Your task to perform on an android device: toggle notification dots Image 0: 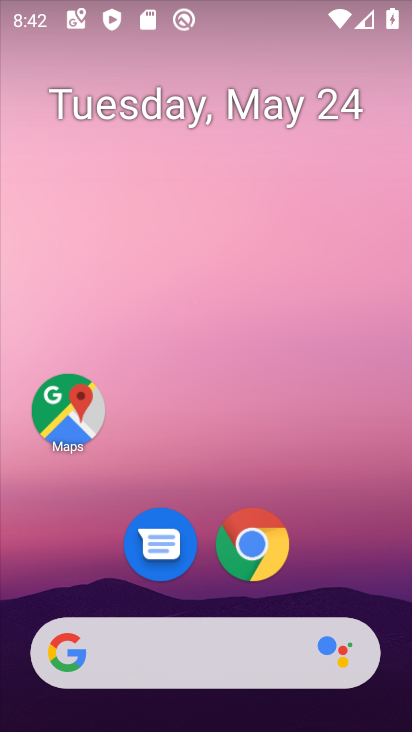
Step 0: drag from (391, 614) to (274, 154)
Your task to perform on an android device: toggle notification dots Image 1: 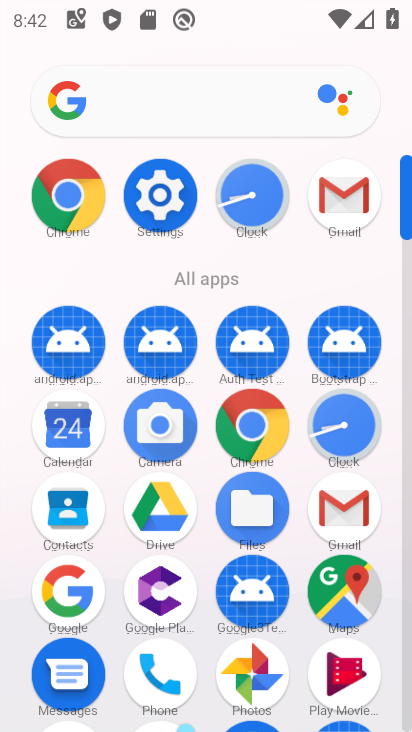
Step 1: click (148, 199)
Your task to perform on an android device: toggle notification dots Image 2: 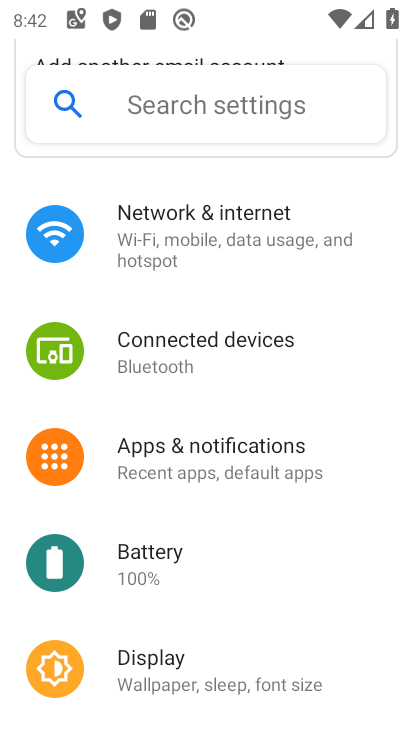
Step 2: click (215, 462)
Your task to perform on an android device: toggle notification dots Image 3: 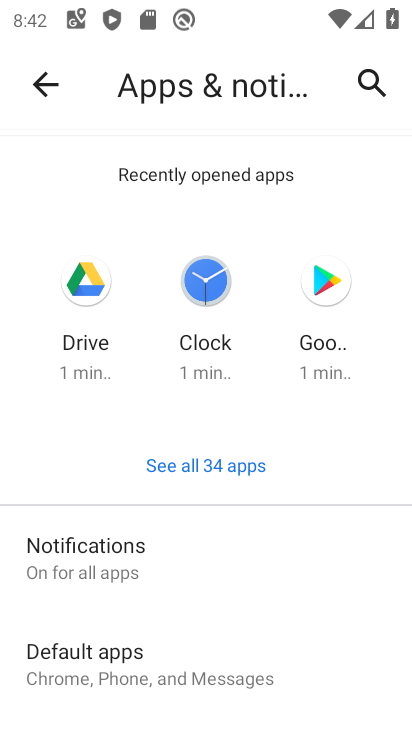
Step 3: drag from (264, 634) to (182, 140)
Your task to perform on an android device: toggle notification dots Image 4: 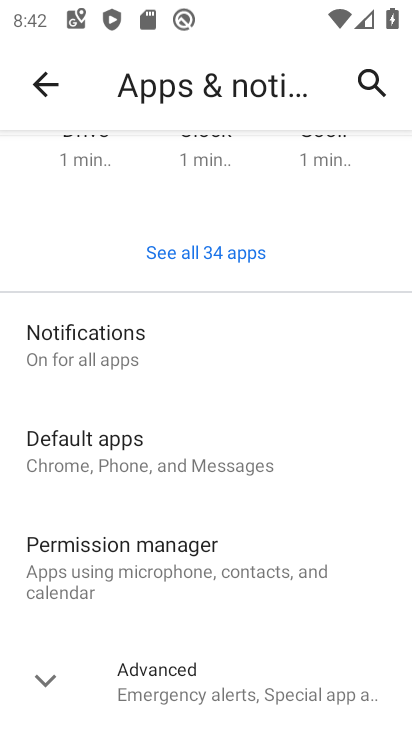
Step 4: click (191, 663)
Your task to perform on an android device: toggle notification dots Image 5: 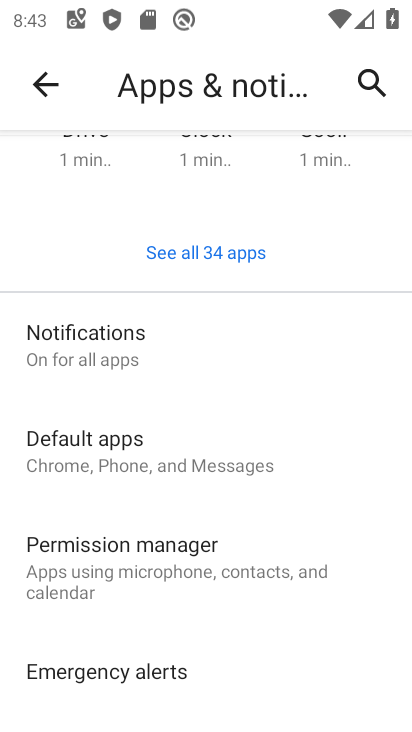
Step 5: drag from (243, 653) to (162, 87)
Your task to perform on an android device: toggle notification dots Image 6: 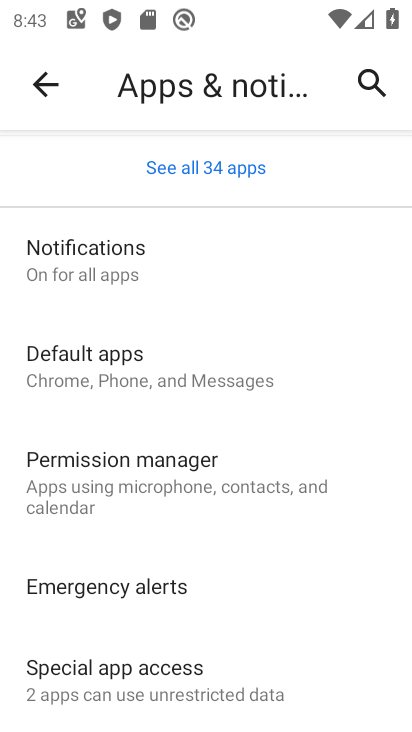
Step 6: drag from (213, 369) to (196, 198)
Your task to perform on an android device: toggle notification dots Image 7: 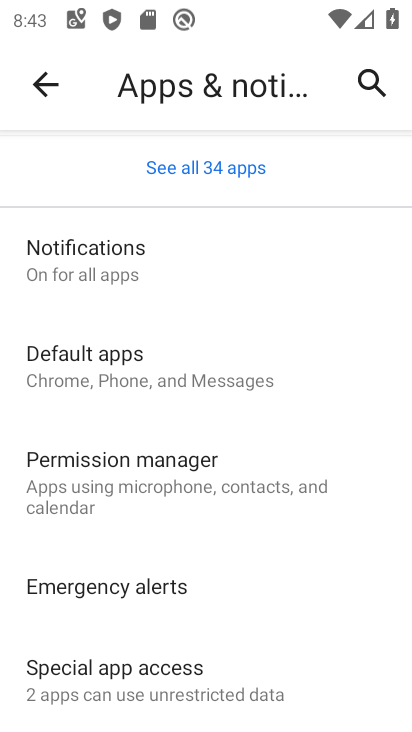
Step 7: click (195, 229)
Your task to perform on an android device: toggle notification dots Image 8: 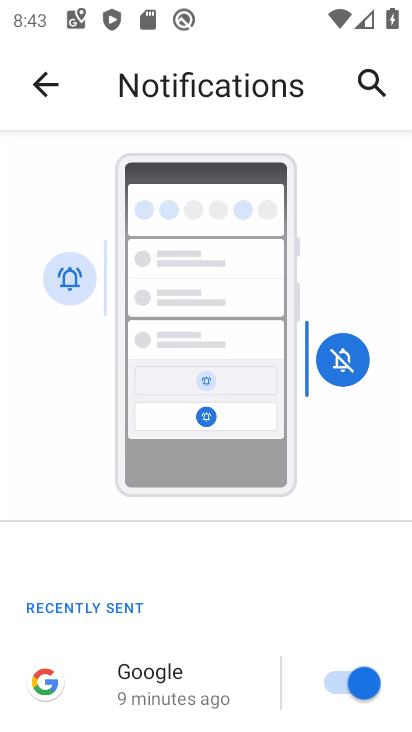
Step 8: drag from (232, 453) to (209, 159)
Your task to perform on an android device: toggle notification dots Image 9: 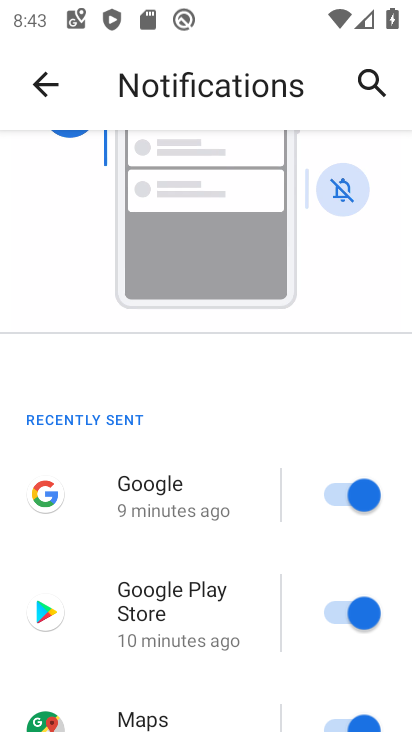
Step 9: drag from (263, 714) to (151, 133)
Your task to perform on an android device: toggle notification dots Image 10: 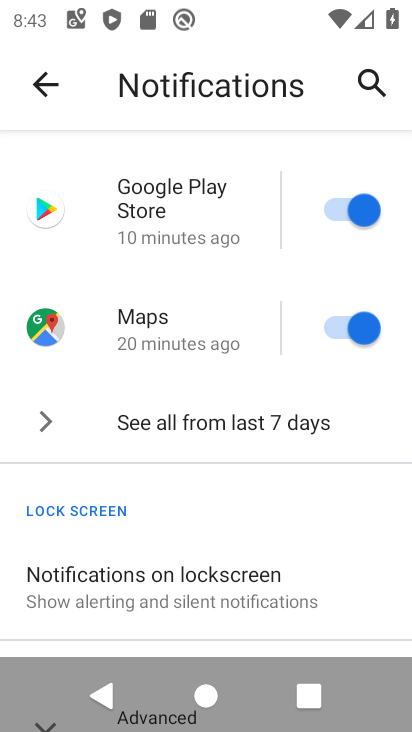
Step 10: drag from (251, 525) to (217, 238)
Your task to perform on an android device: toggle notification dots Image 11: 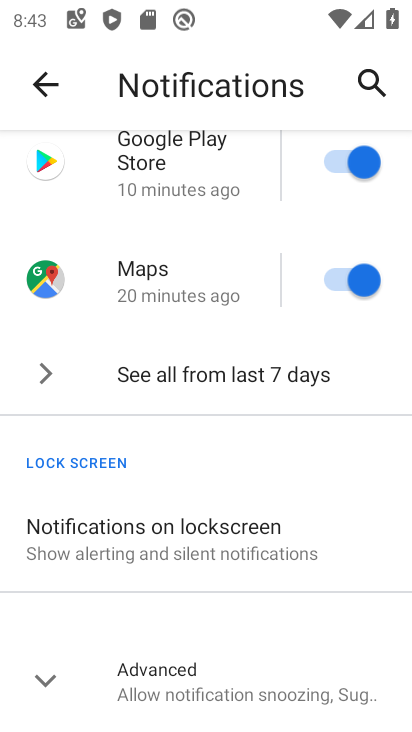
Step 11: click (251, 689)
Your task to perform on an android device: toggle notification dots Image 12: 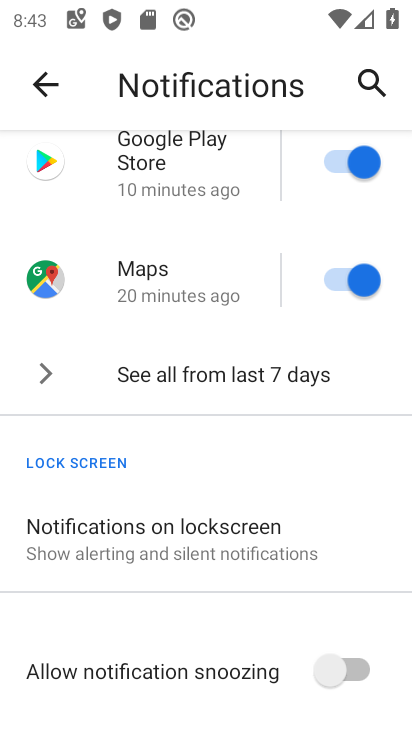
Step 12: drag from (263, 657) to (191, 229)
Your task to perform on an android device: toggle notification dots Image 13: 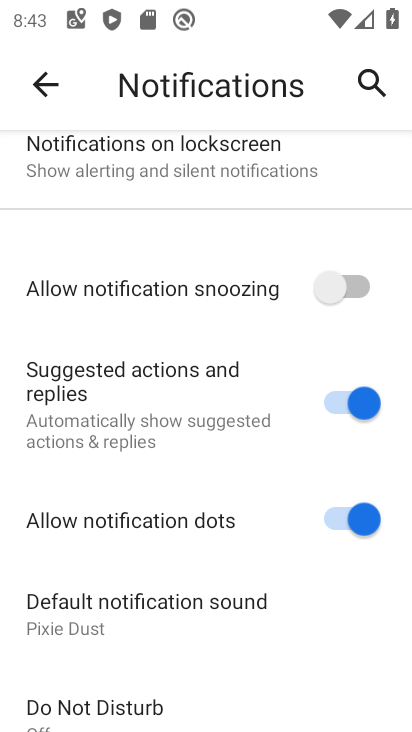
Step 13: click (328, 524)
Your task to perform on an android device: toggle notification dots Image 14: 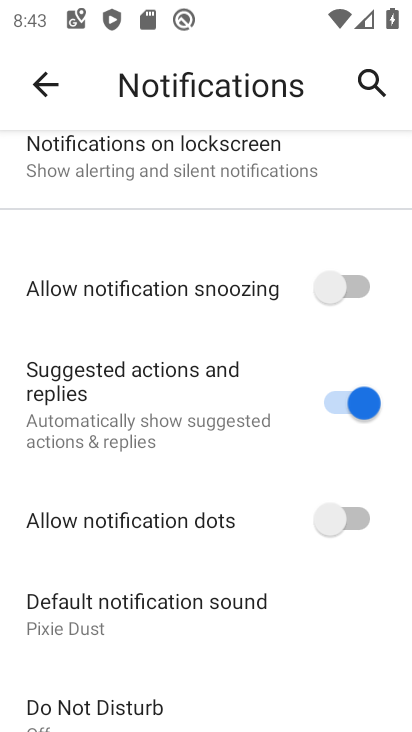
Step 14: task complete